Your task to perform on an android device: turn on translation in the chrome app Image 0: 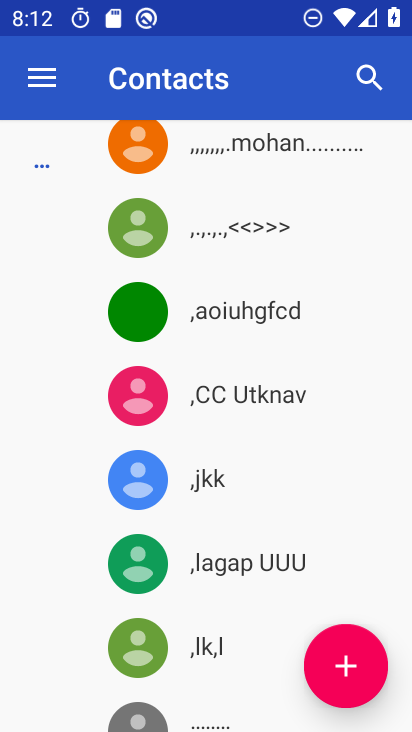
Step 0: press home button
Your task to perform on an android device: turn on translation in the chrome app Image 1: 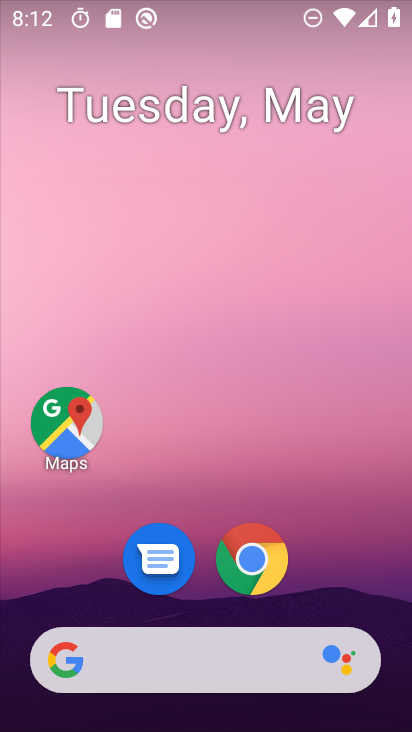
Step 1: drag from (390, 595) to (249, 62)
Your task to perform on an android device: turn on translation in the chrome app Image 2: 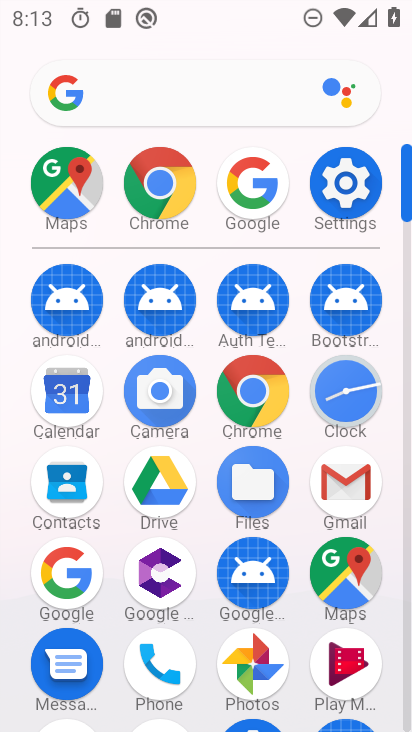
Step 2: click (178, 191)
Your task to perform on an android device: turn on translation in the chrome app Image 3: 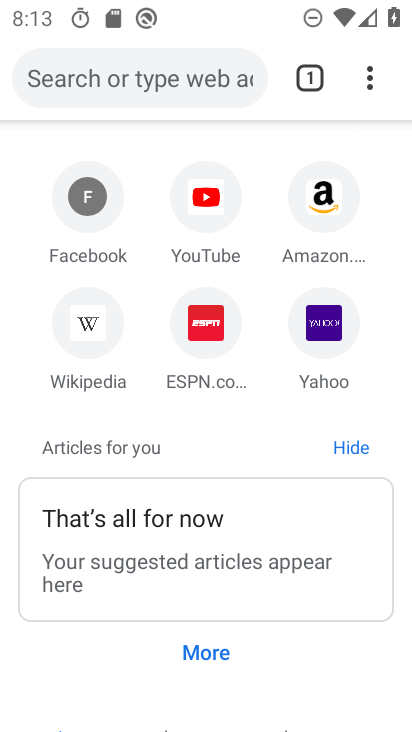
Step 3: click (368, 74)
Your task to perform on an android device: turn on translation in the chrome app Image 4: 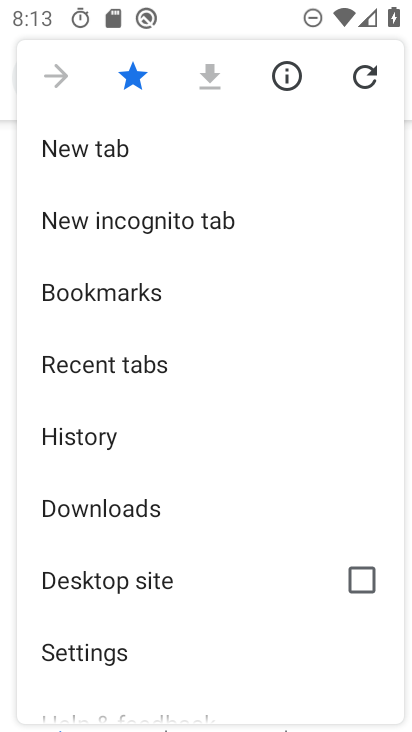
Step 4: drag from (146, 652) to (181, 229)
Your task to perform on an android device: turn on translation in the chrome app Image 5: 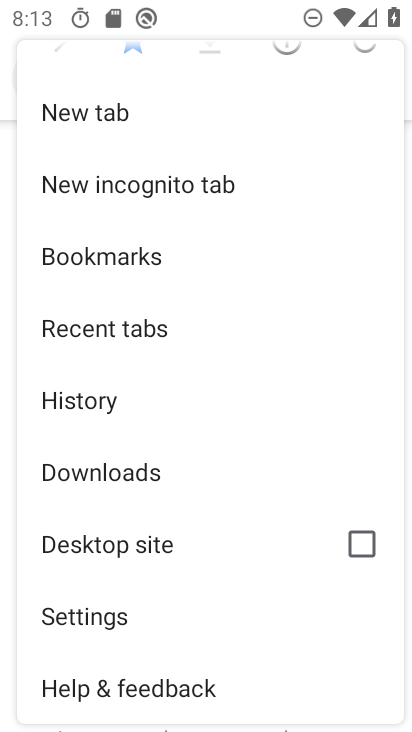
Step 5: click (140, 627)
Your task to perform on an android device: turn on translation in the chrome app Image 6: 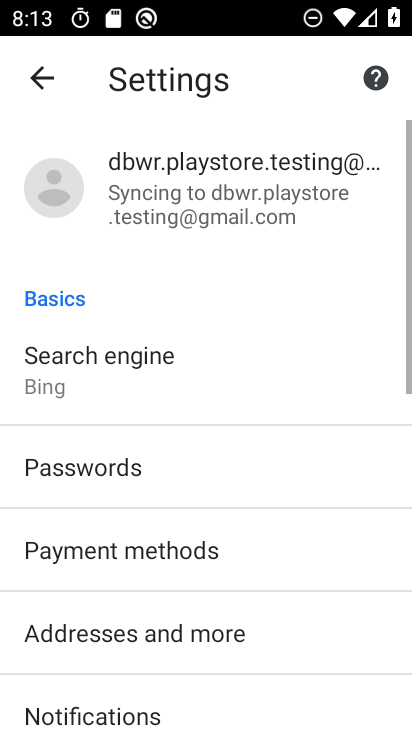
Step 6: drag from (140, 627) to (133, 174)
Your task to perform on an android device: turn on translation in the chrome app Image 7: 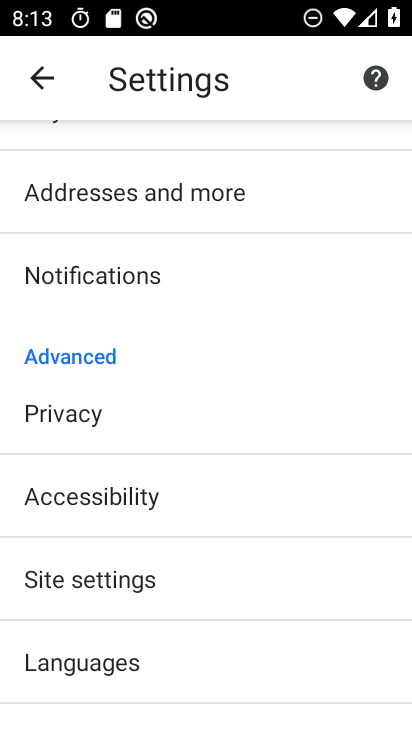
Step 7: click (177, 656)
Your task to perform on an android device: turn on translation in the chrome app Image 8: 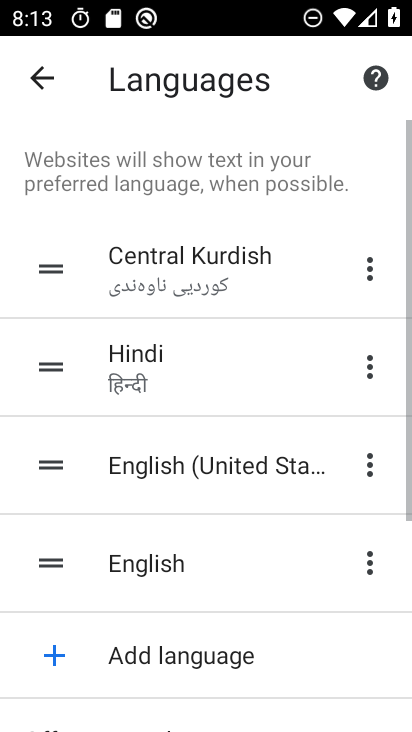
Step 8: task complete